Your task to perform on an android device: turn on showing notifications on the lock screen Image 0: 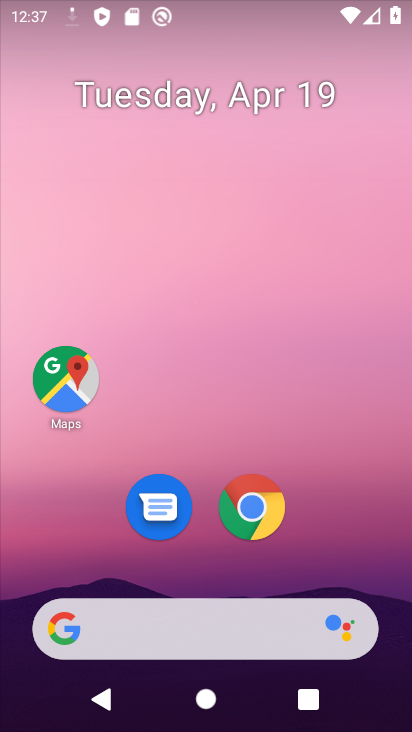
Step 0: drag from (206, 574) to (231, 13)
Your task to perform on an android device: turn on showing notifications on the lock screen Image 1: 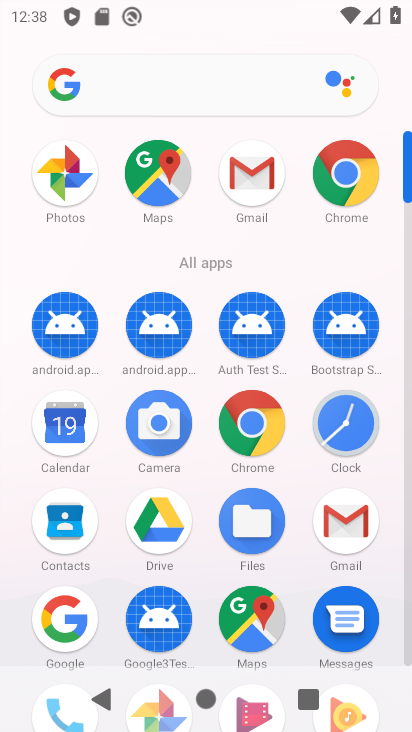
Step 1: drag from (207, 560) to (250, 149)
Your task to perform on an android device: turn on showing notifications on the lock screen Image 2: 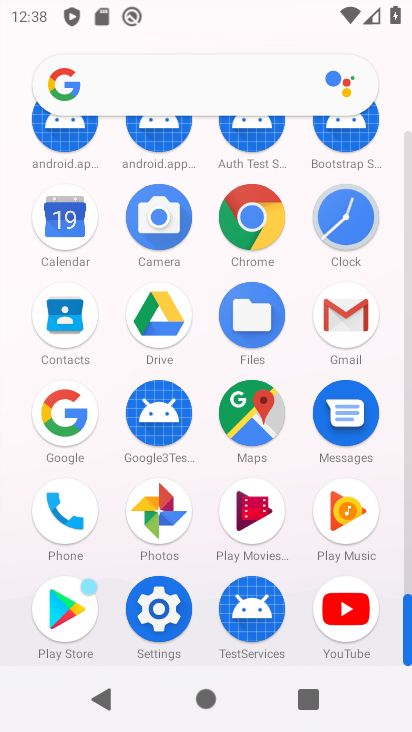
Step 2: click (156, 602)
Your task to perform on an android device: turn on showing notifications on the lock screen Image 3: 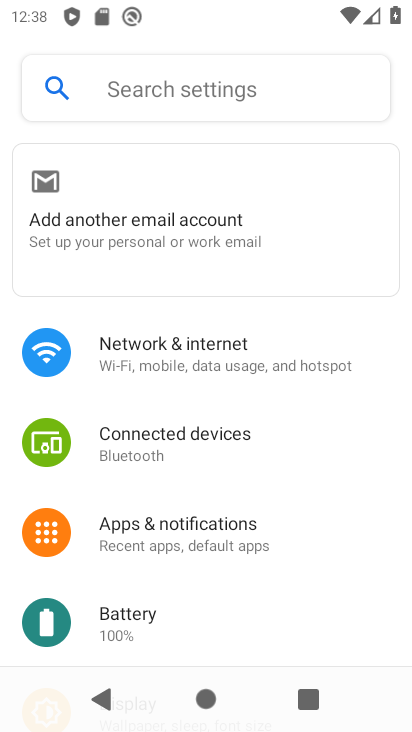
Step 3: click (211, 533)
Your task to perform on an android device: turn on showing notifications on the lock screen Image 4: 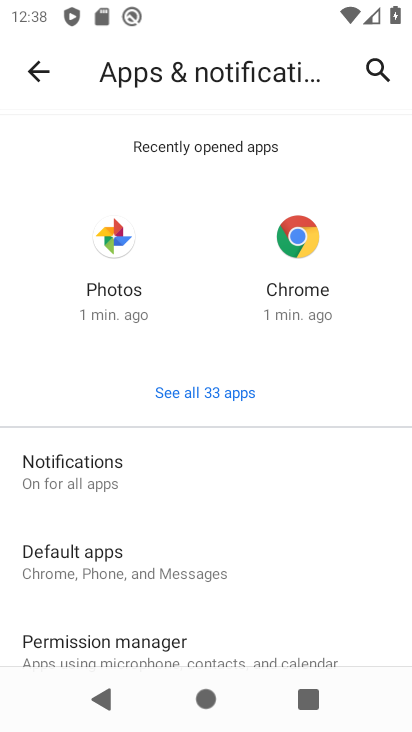
Step 4: click (141, 474)
Your task to perform on an android device: turn on showing notifications on the lock screen Image 5: 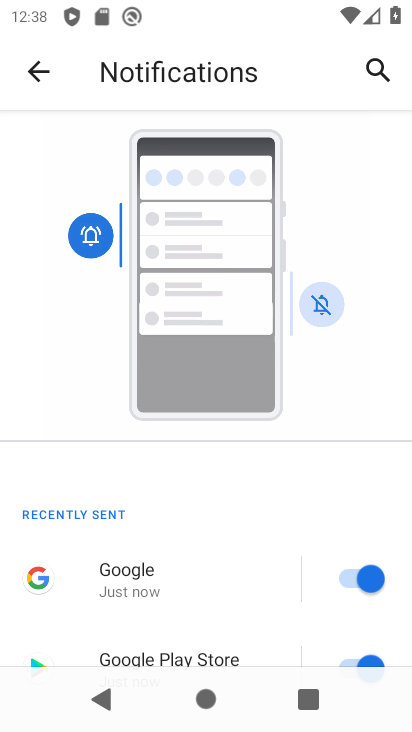
Step 5: drag from (216, 621) to (245, 226)
Your task to perform on an android device: turn on showing notifications on the lock screen Image 6: 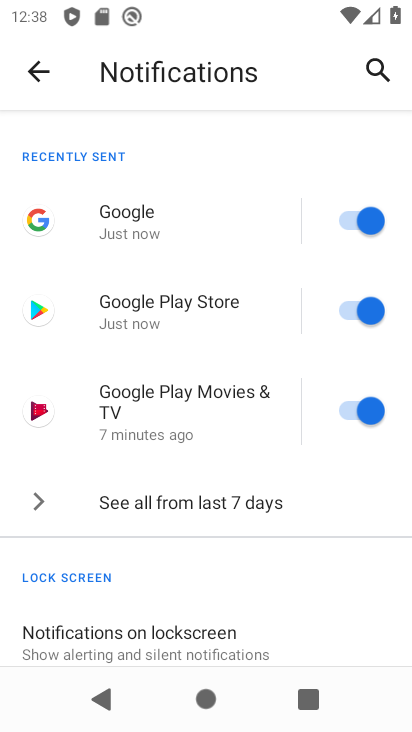
Step 6: click (249, 637)
Your task to perform on an android device: turn on showing notifications on the lock screen Image 7: 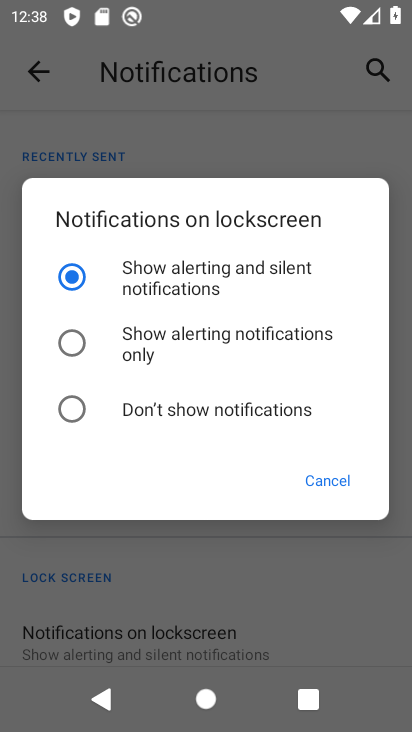
Step 7: click (71, 333)
Your task to perform on an android device: turn on showing notifications on the lock screen Image 8: 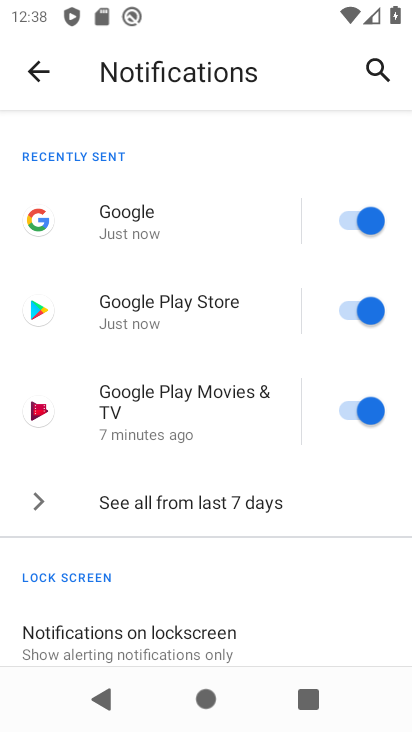
Step 8: drag from (255, 627) to (286, 141)
Your task to perform on an android device: turn on showing notifications on the lock screen Image 9: 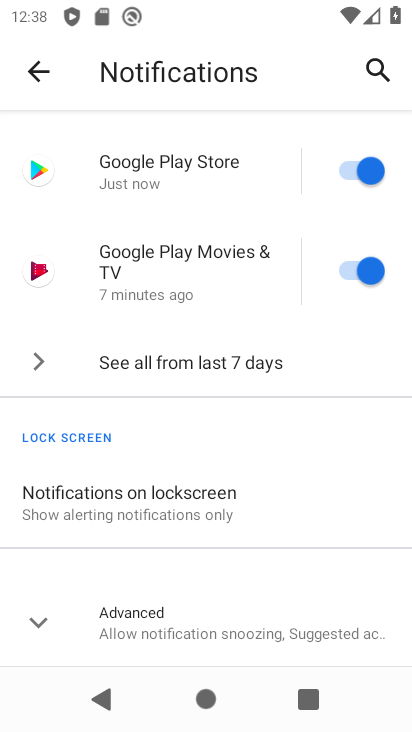
Step 9: click (38, 621)
Your task to perform on an android device: turn on showing notifications on the lock screen Image 10: 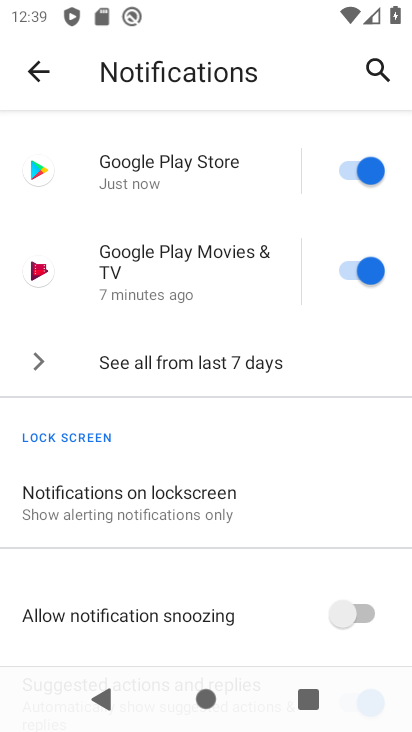
Step 10: task complete